Your task to perform on an android device: change alarm snooze length Image 0: 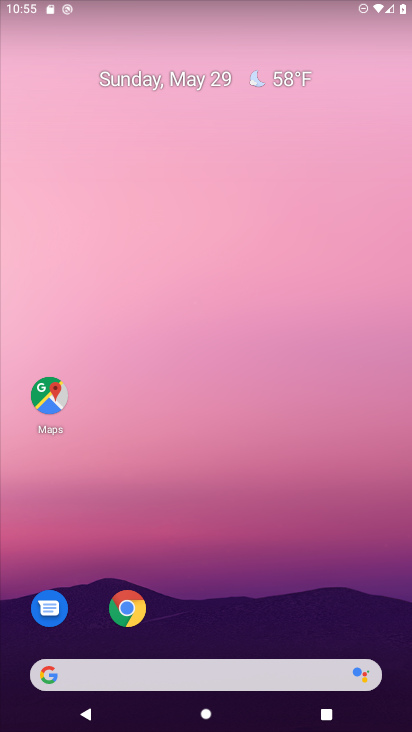
Step 0: drag from (211, 663) to (215, 221)
Your task to perform on an android device: change alarm snooze length Image 1: 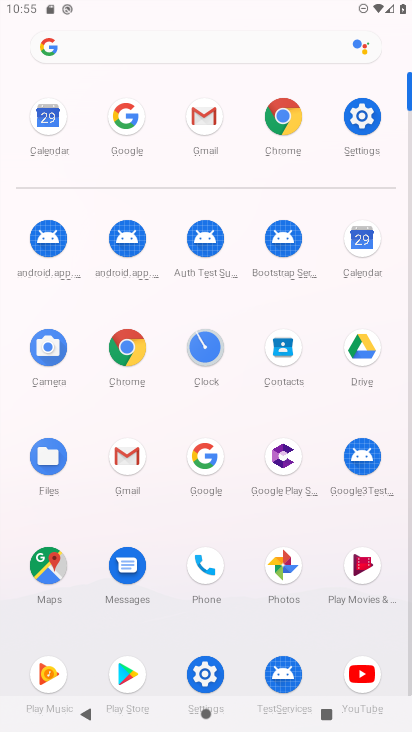
Step 1: click (348, 121)
Your task to perform on an android device: change alarm snooze length Image 2: 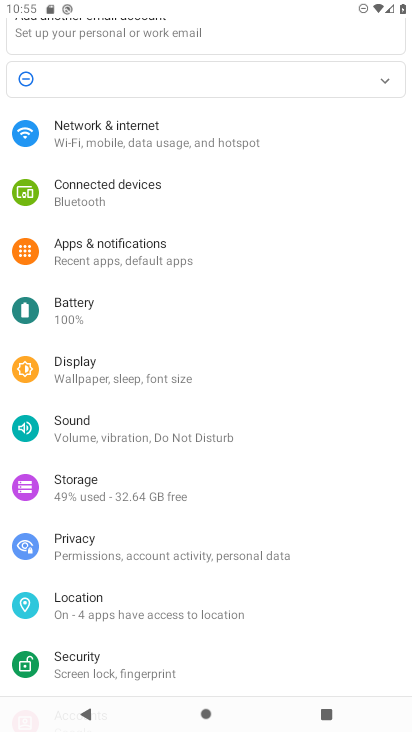
Step 2: press home button
Your task to perform on an android device: change alarm snooze length Image 3: 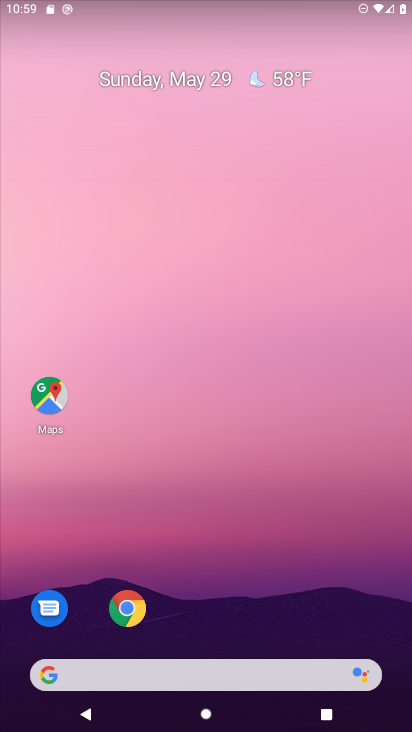
Step 3: drag from (168, 662) to (202, 197)
Your task to perform on an android device: change alarm snooze length Image 4: 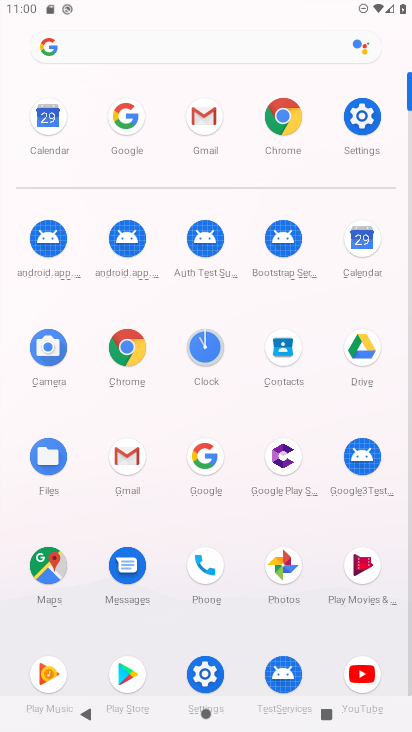
Step 4: click (374, 122)
Your task to perform on an android device: change alarm snooze length Image 5: 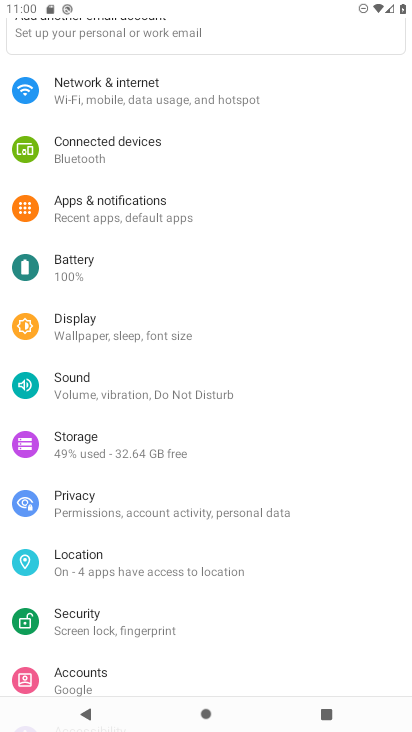
Step 5: press home button
Your task to perform on an android device: change alarm snooze length Image 6: 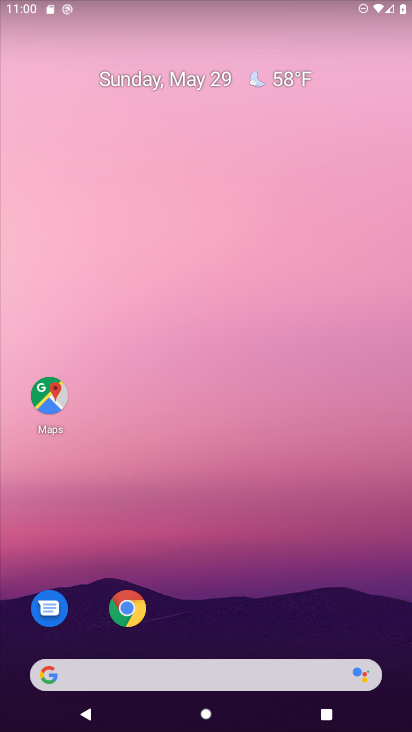
Step 6: drag from (227, 641) to (257, 174)
Your task to perform on an android device: change alarm snooze length Image 7: 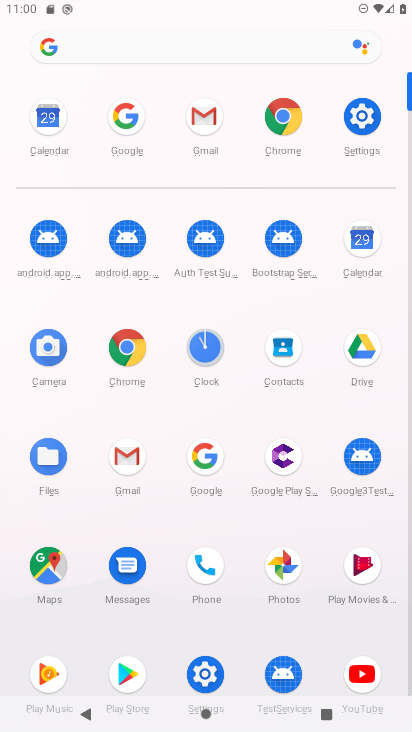
Step 7: click (195, 356)
Your task to perform on an android device: change alarm snooze length Image 8: 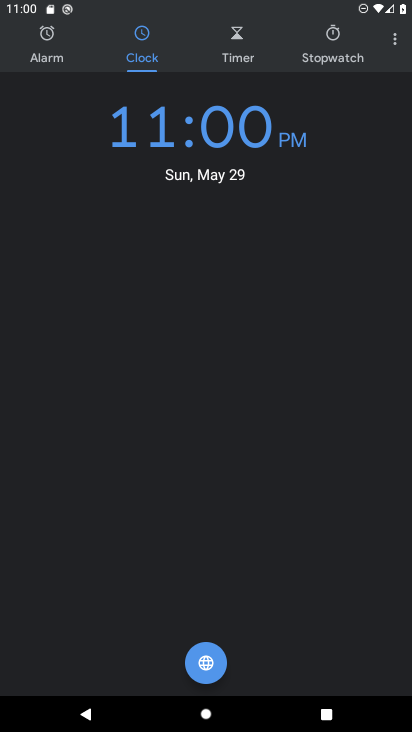
Step 8: click (399, 31)
Your task to perform on an android device: change alarm snooze length Image 9: 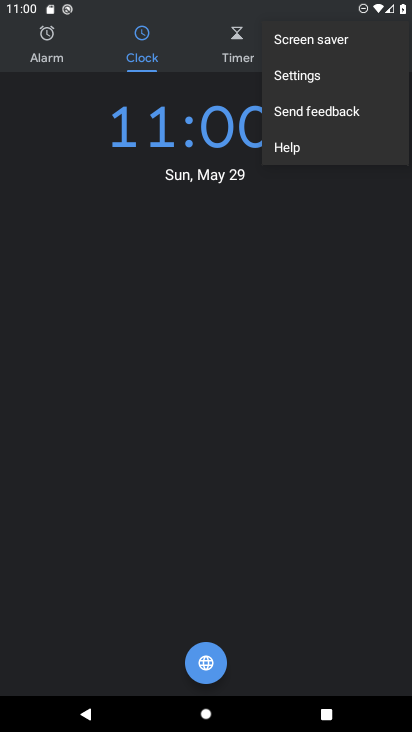
Step 9: click (307, 60)
Your task to perform on an android device: change alarm snooze length Image 10: 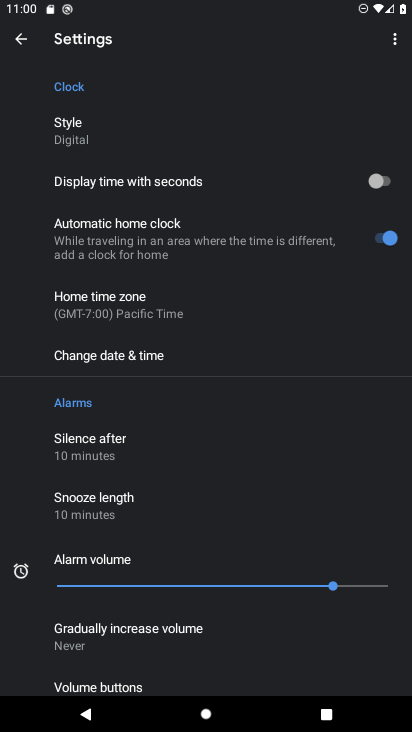
Step 10: click (116, 511)
Your task to perform on an android device: change alarm snooze length Image 11: 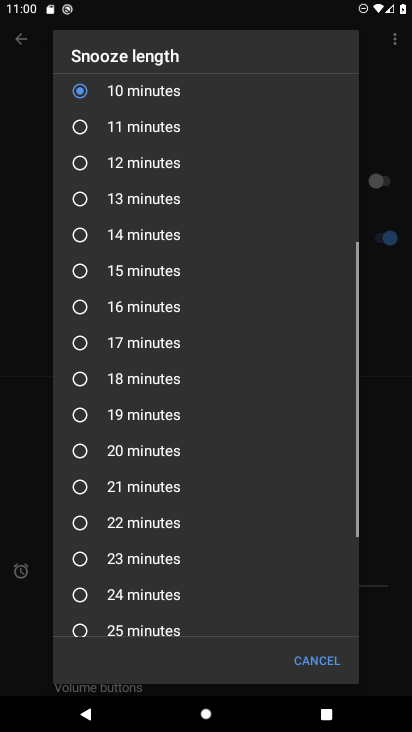
Step 11: click (119, 446)
Your task to perform on an android device: change alarm snooze length Image 12: 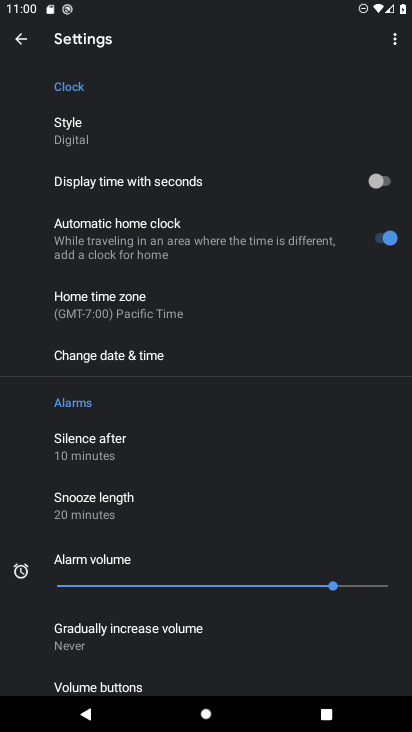
Step 12: task complete